Your task to perform on an android device: Clear the cart on bestbuy.com. Add logitech g903 to the cart on bestbuy.com, then select checkout. Image 0: 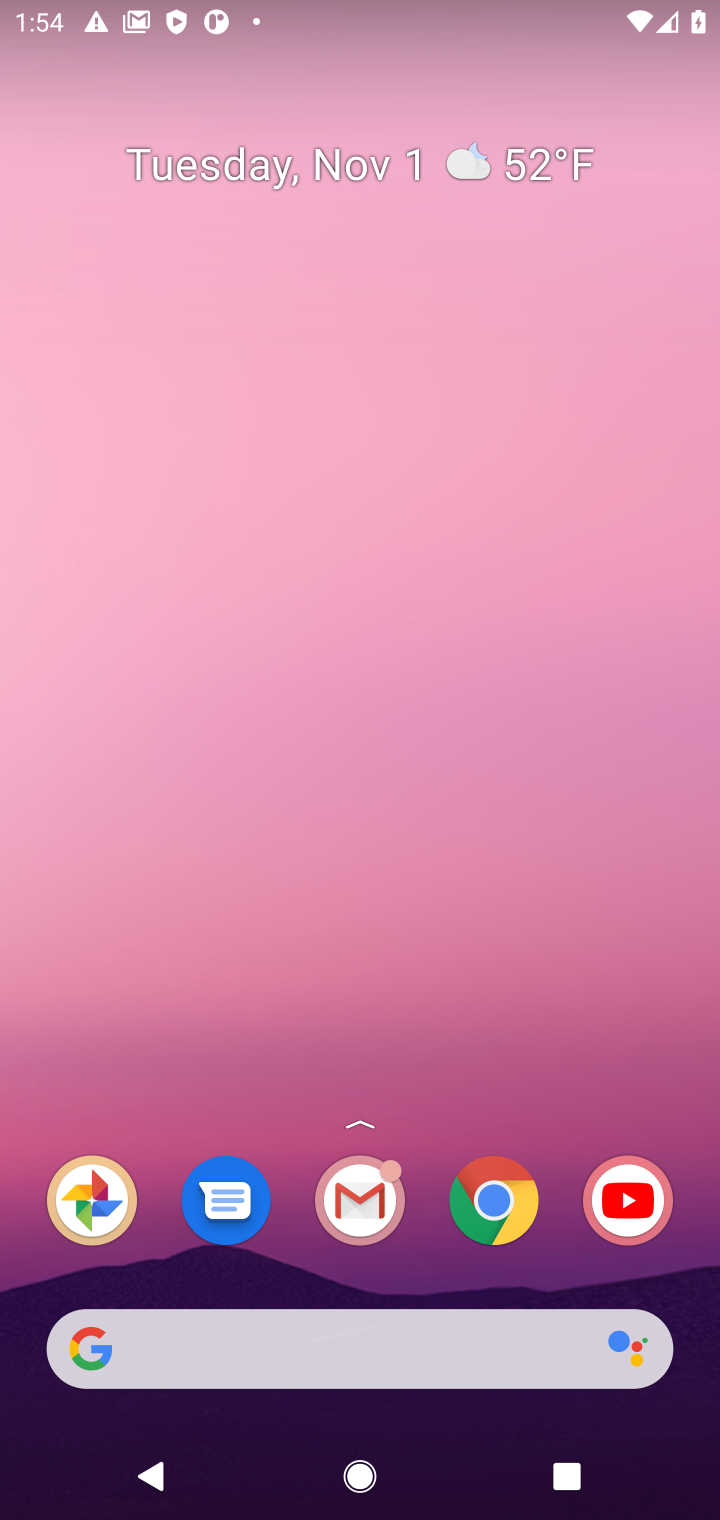
Step 0: click (88, 1356)
Your task to perform on an android device: Clear the cart on bestbuy.com. Add logitech g903 to the cart on bestbuy.com, then select checkout. Image 1: 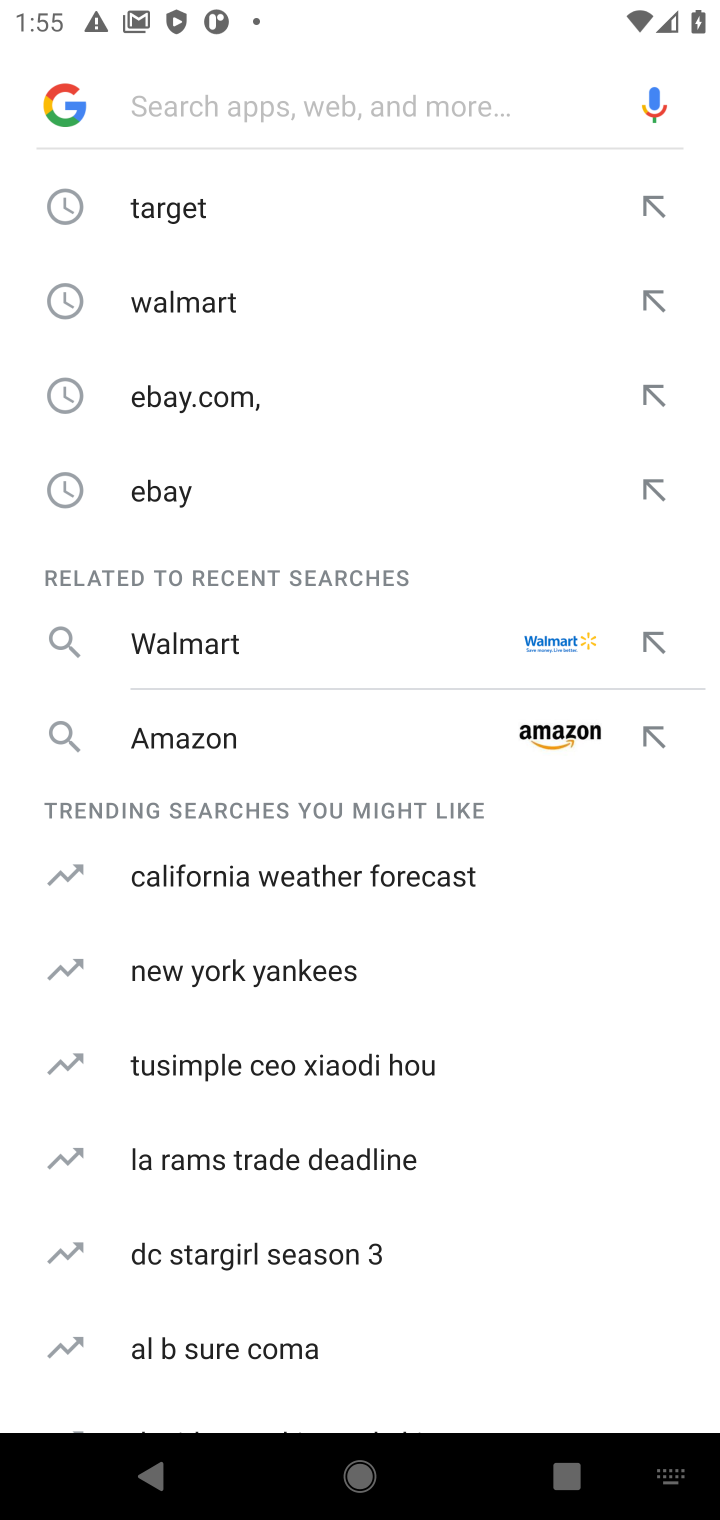
Step 1: type "bestbuy.com,"
Your task to perform on an android device: Clear the cart on bestbuy.com. Add logitech g903 to the cart on bestbuy.com, then select checkout. Image 2: 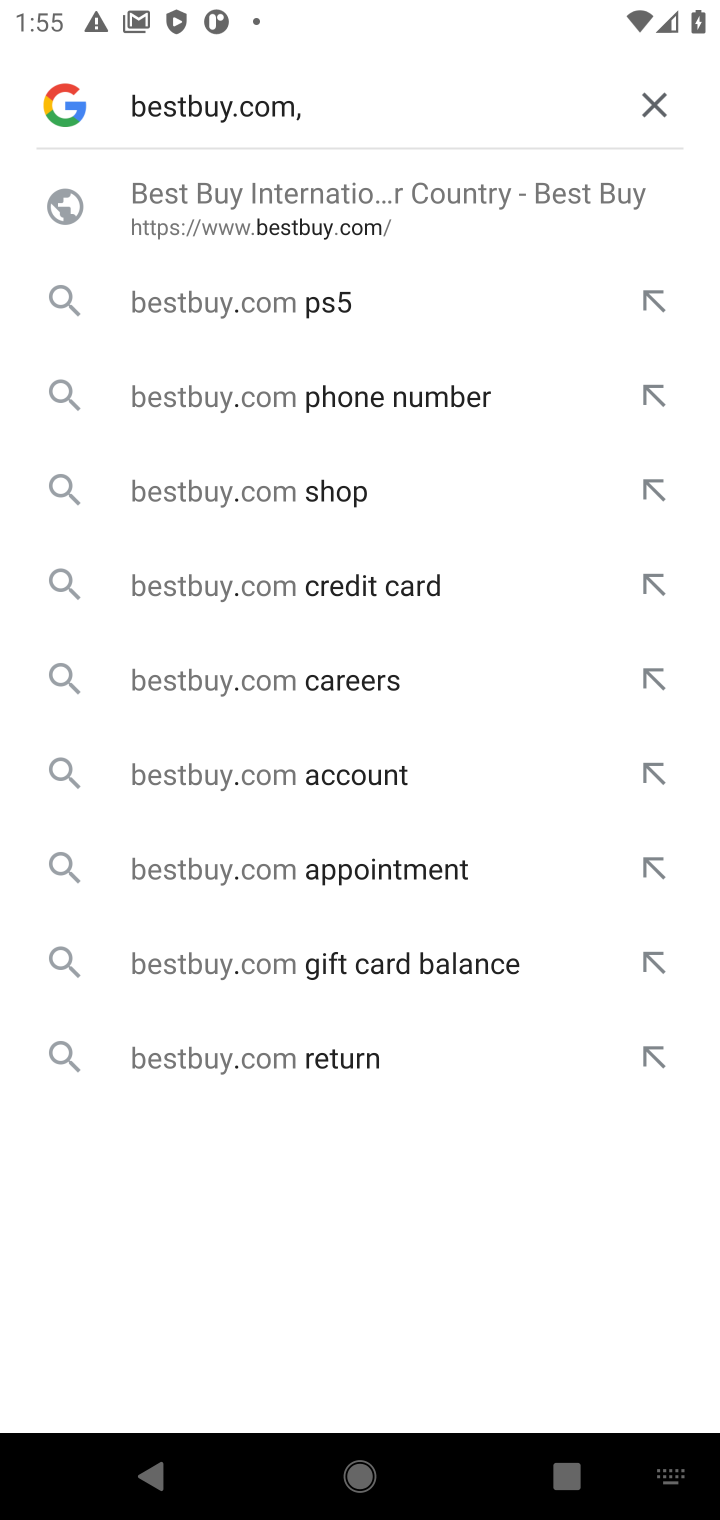
Step 2: click (383, 215)
Your task to perform on an android device: Clear the cart on bestbuy.com. Add logitech g903 to the cart on bestbuy.com, then select checkout. Image 3: 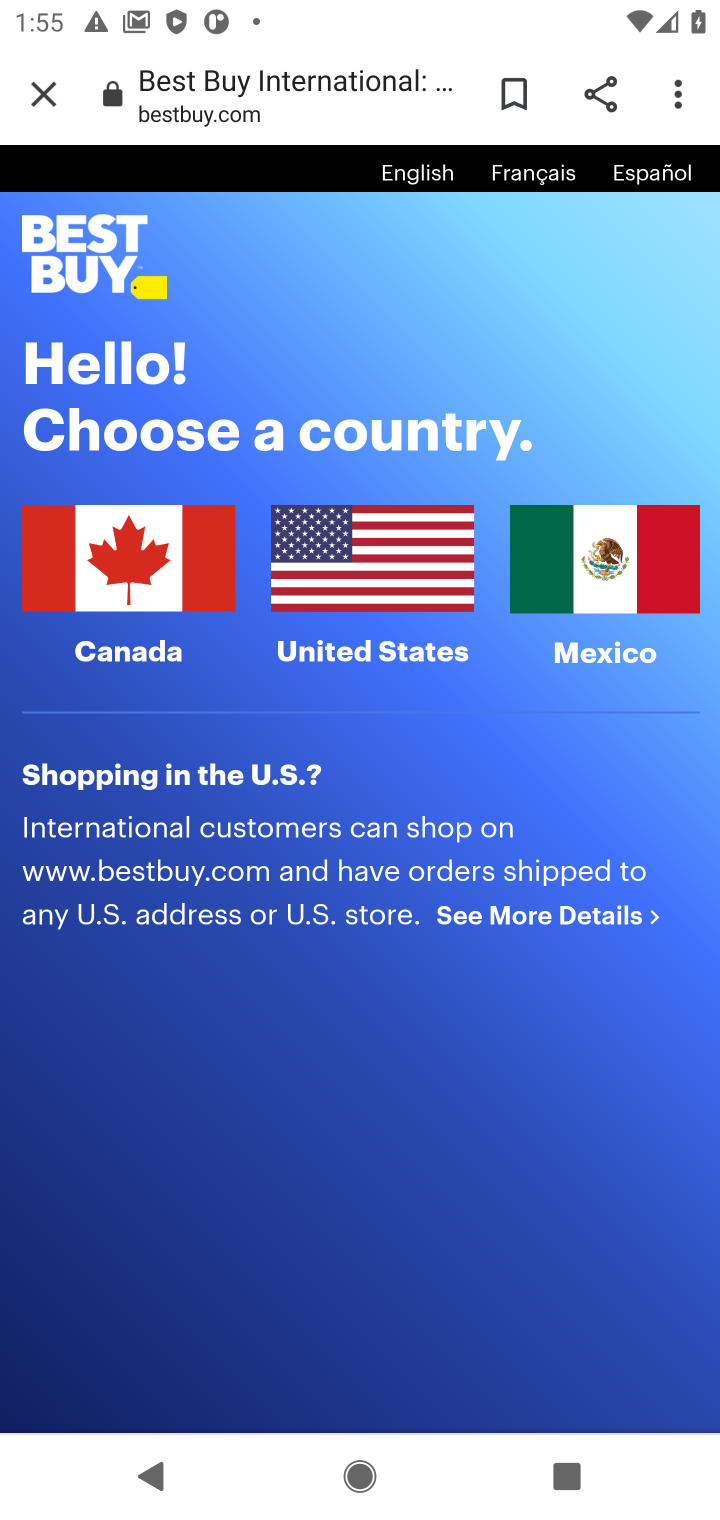
Step 3: click (342, 536)
Your task to perform on an android device: Clear the cart on bestbuy.com. Add logitech g903 to the cart on bestbuy.com, then select checkout. Image 4: 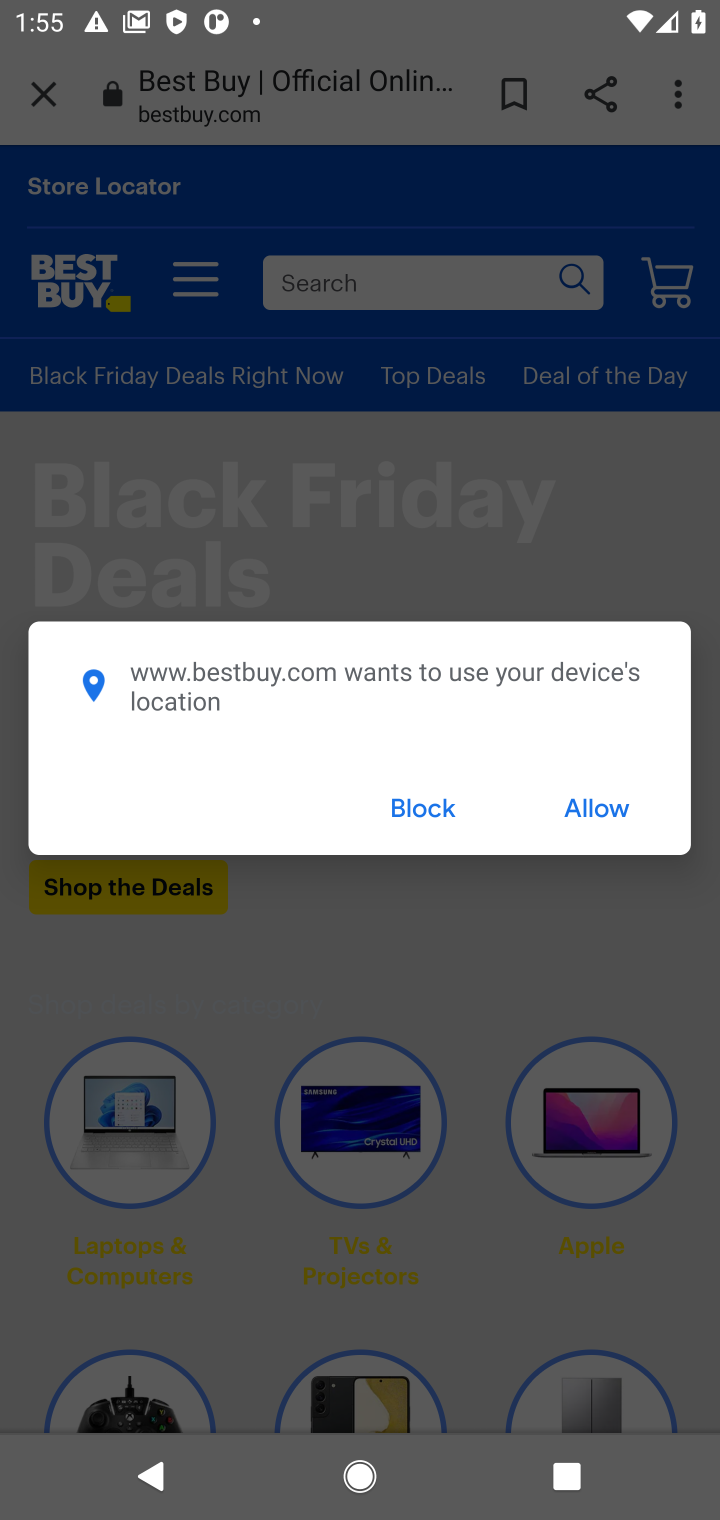
Step 4: click (626, 816)
Your task to perform on an android device: Clear the cart on bestbuy.com. Add logitech g903 to the cart on bestbuy.com, then select checkout. Image 5: 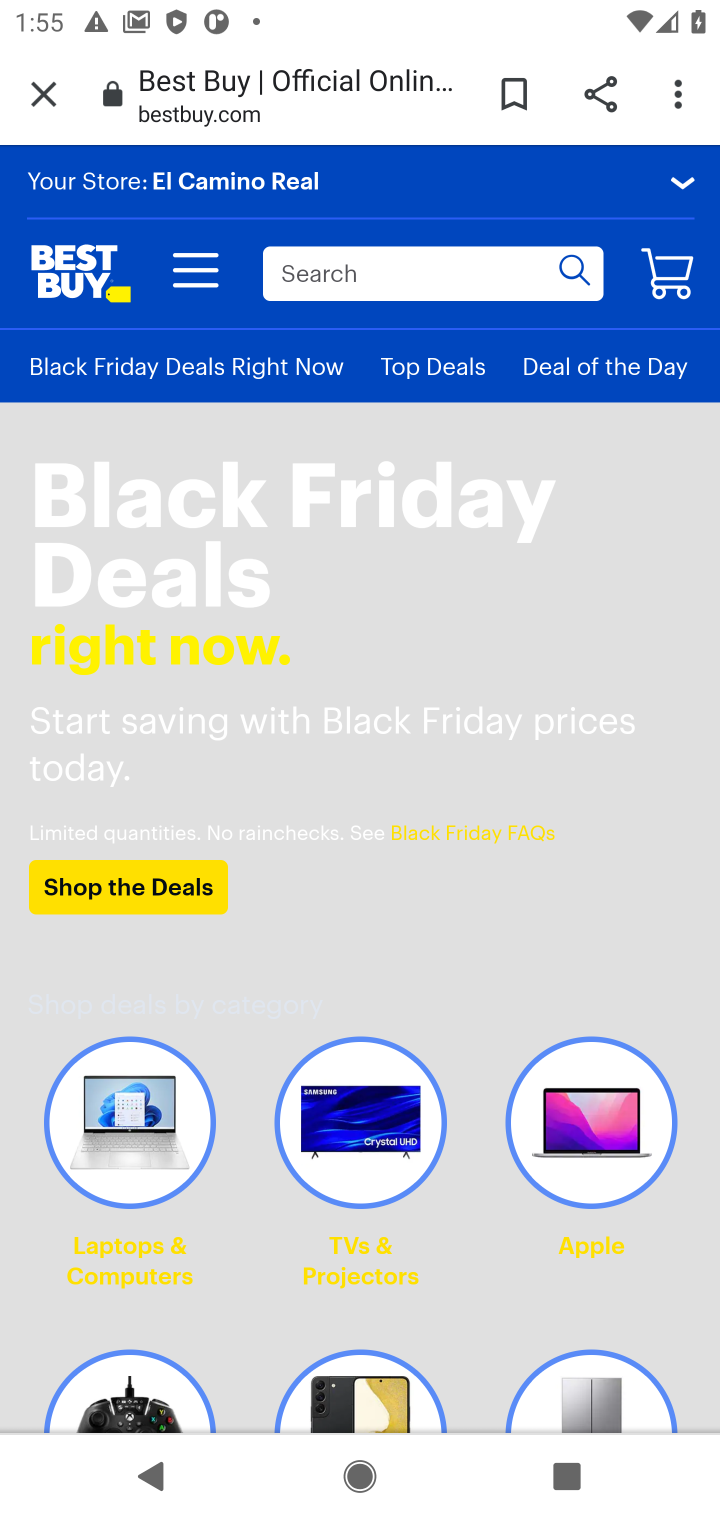
Step 5: click (360, 266)
Your task to perform on an android device: Clear the cart on bestbuy.com. Add logitech g903 to the cart on bestbuy.com, then select checkout. Image 6: 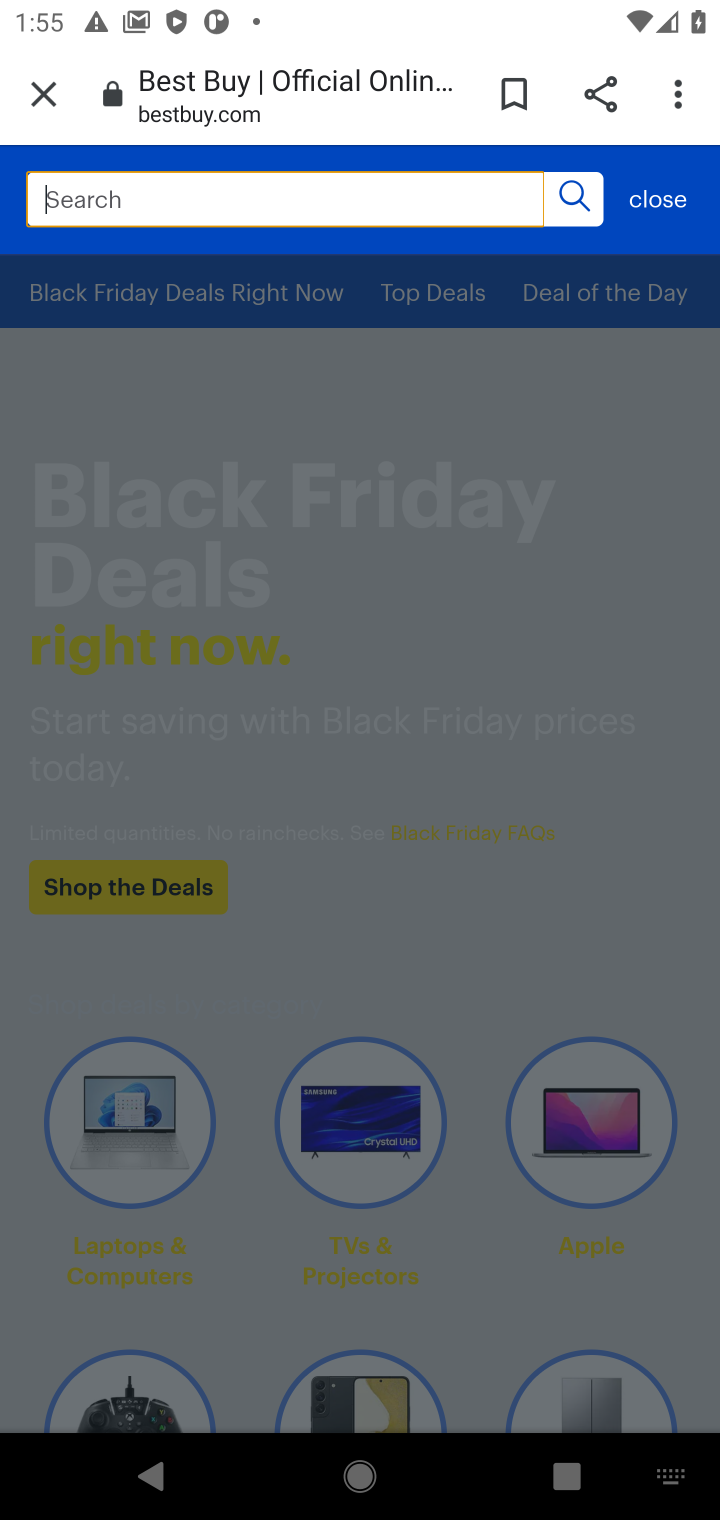
Step 6: click (487, 593)
Your task to perform on an android device: Clear the cart on bestbuy.com. Add logitech g903 to the cart on bestbuy.com, then select checkout. Image 7: 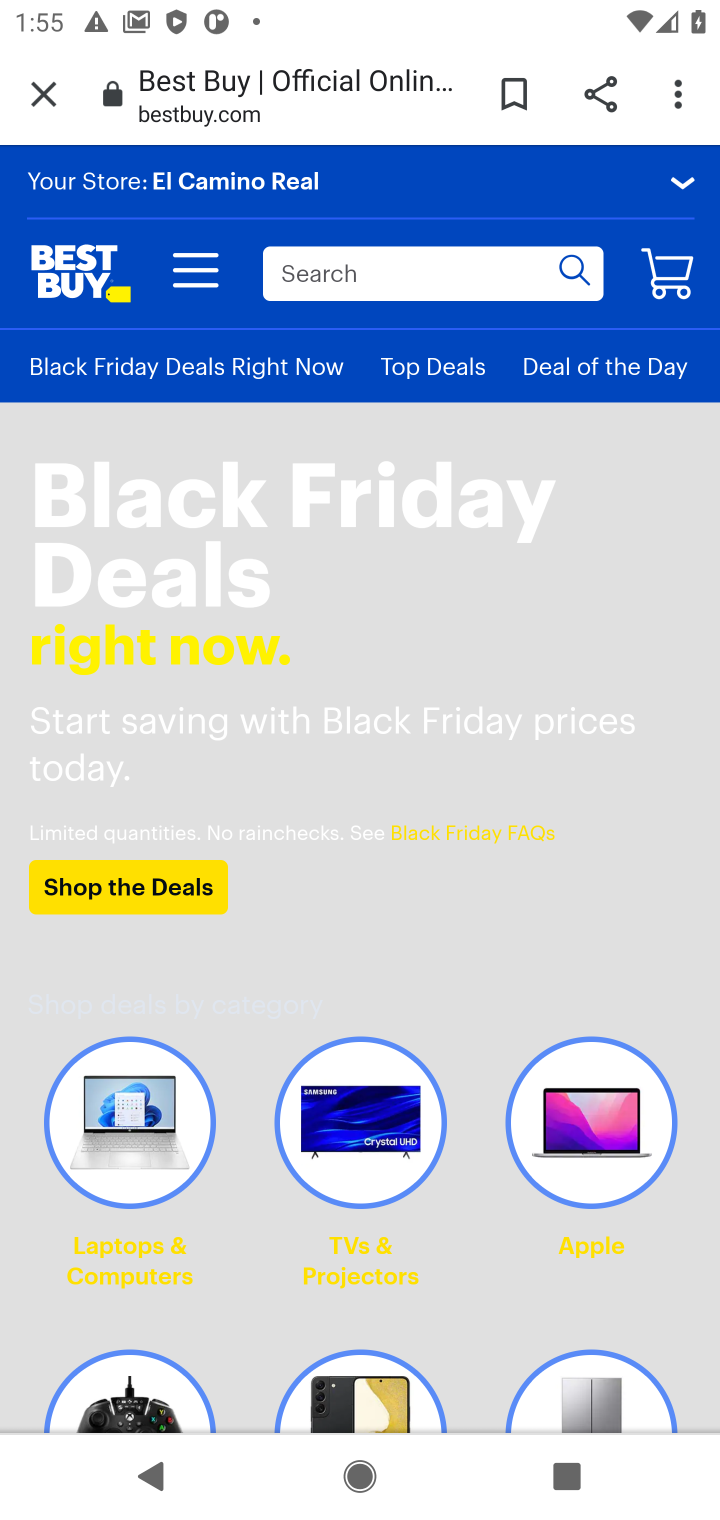
Step 7: click (668, 274)
Your task to perform on an android device: Clear the cart on bestbuy.com. Add logitech g903 to the cart on bestbuy.com, then select checkout. Image 8: 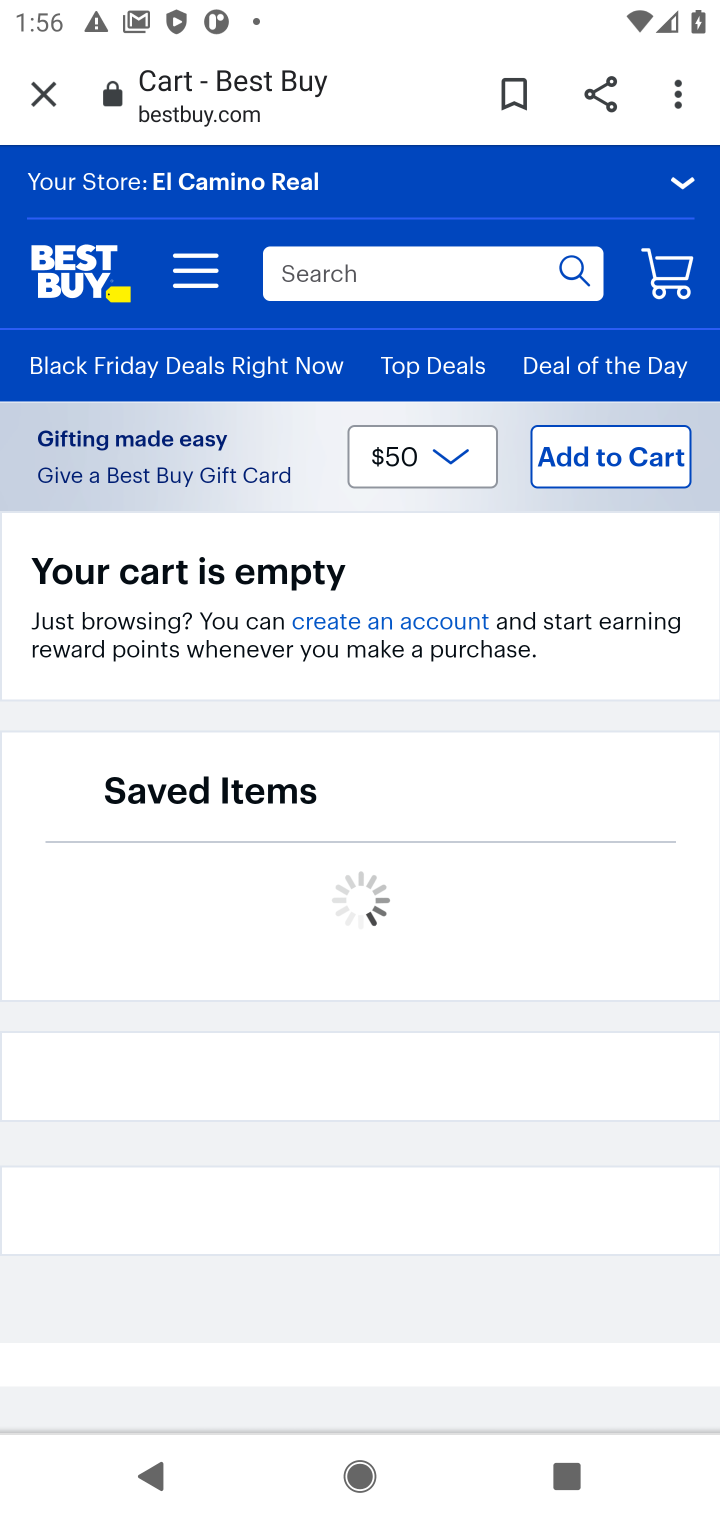
Step 8: click (329, 265)
Your task to perform on an android device: Clear the cart on bestbuy.com. Add logitech g903 to the cart on bestbuy.com, then select checkout. Image 9: 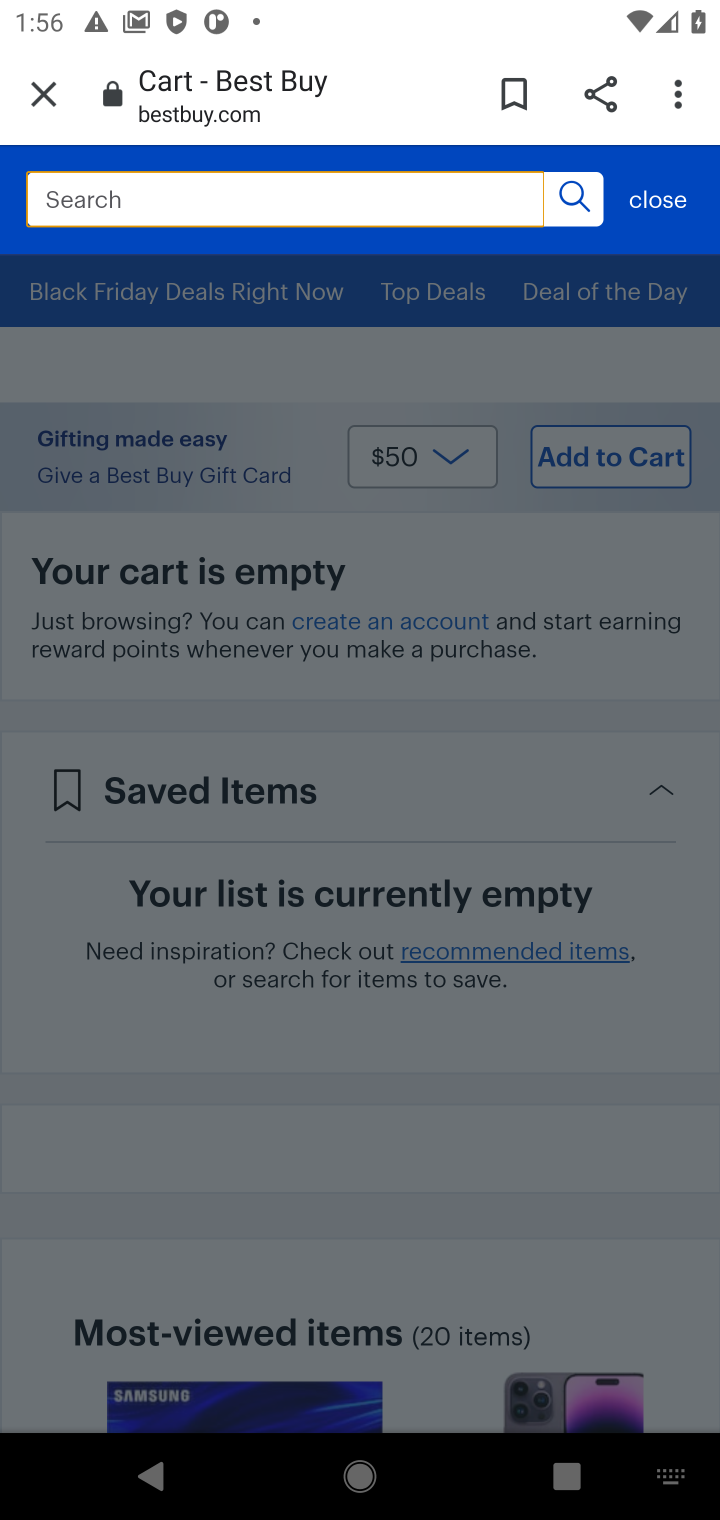
Step 9: type "logitech g903"
Your task to perform on an android device: Clear the cart on bestbuy.com. Add logitech g903 to the cart on bestbuy.com, then select checkout. Image 10: 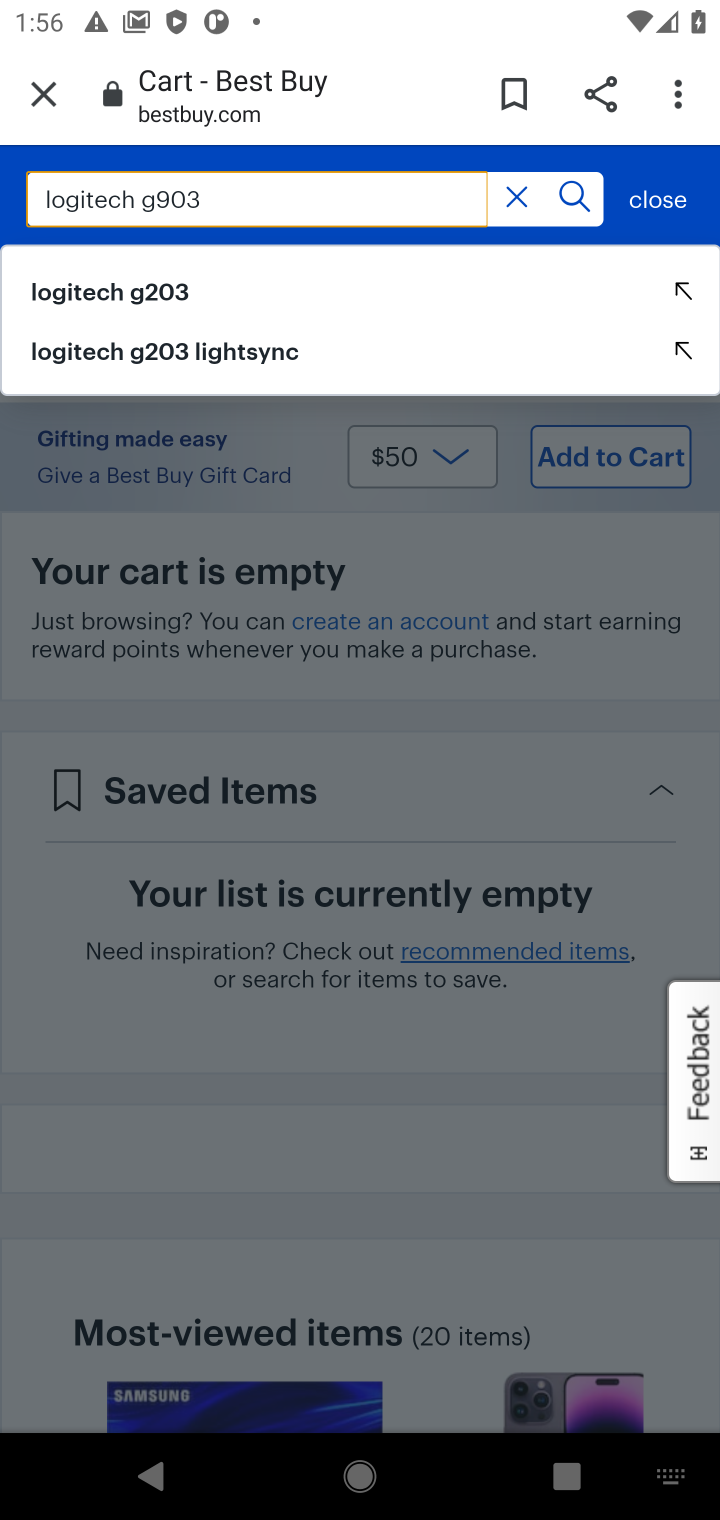
Step 10: click (142, 289)
Your task to perform on an android device: Clear the cart on bestbuy.com. Add logitech g903 to the cart on bestbuy.com, then select checkout. Image 11: 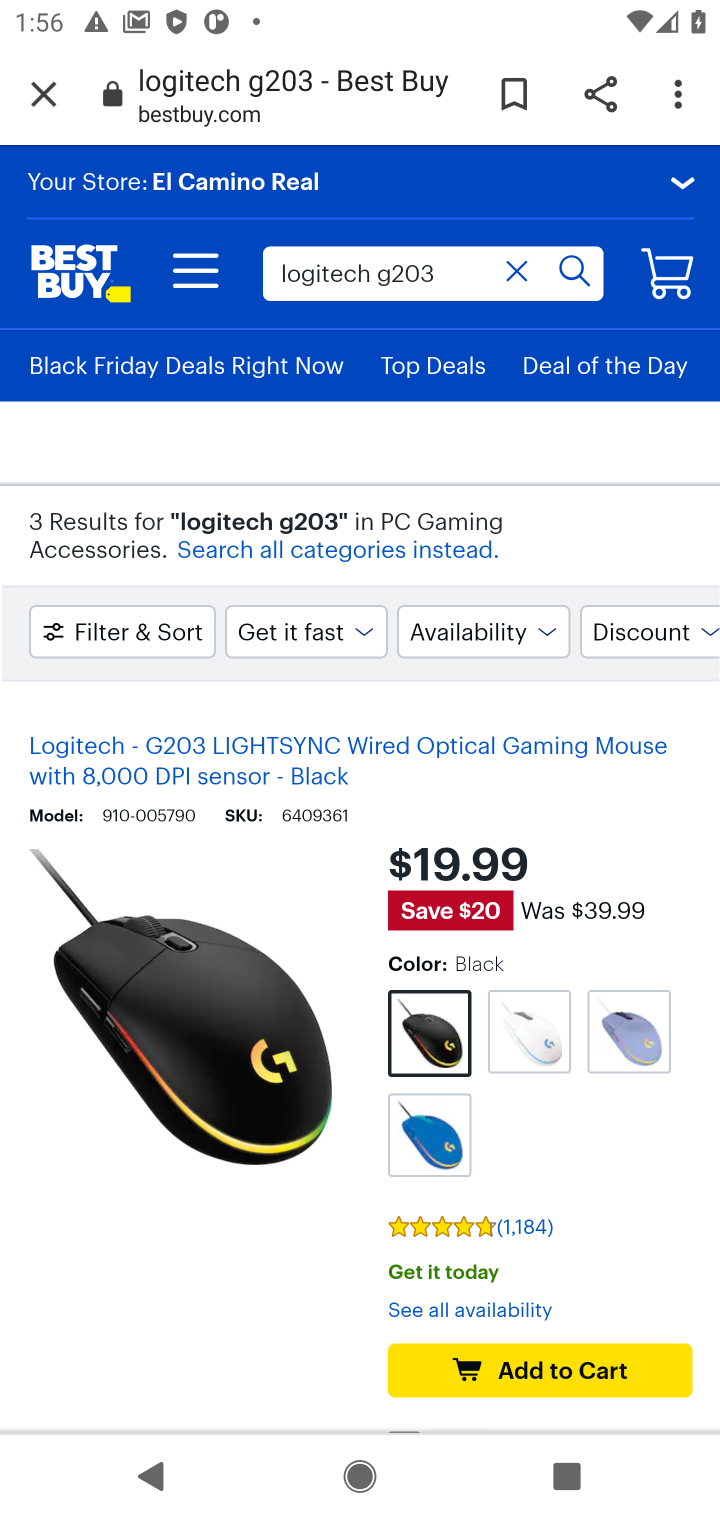
Step 11: click (518, 1367)
Your task to perform on an android device: Clear the cart on bestbuy.com. Add logitech g903 to the cart on bestbuy.com, then select checkout. Image 12: 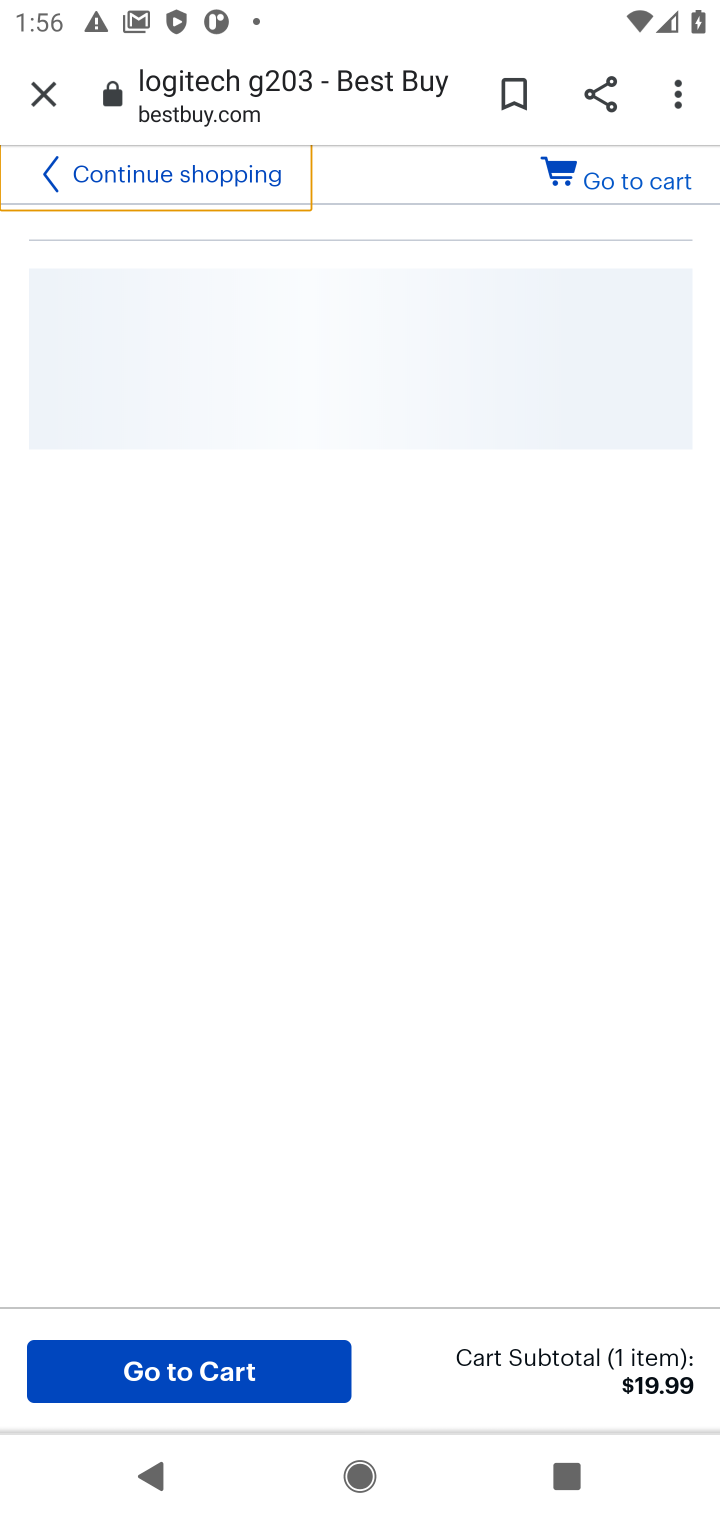
Step 12: click (160, 1361)
Your task to perform on an android device: Clear the cart on bestbuy.com. Add logitech g903 to the cart on bestbuy.com, then select checkout. Image 13: 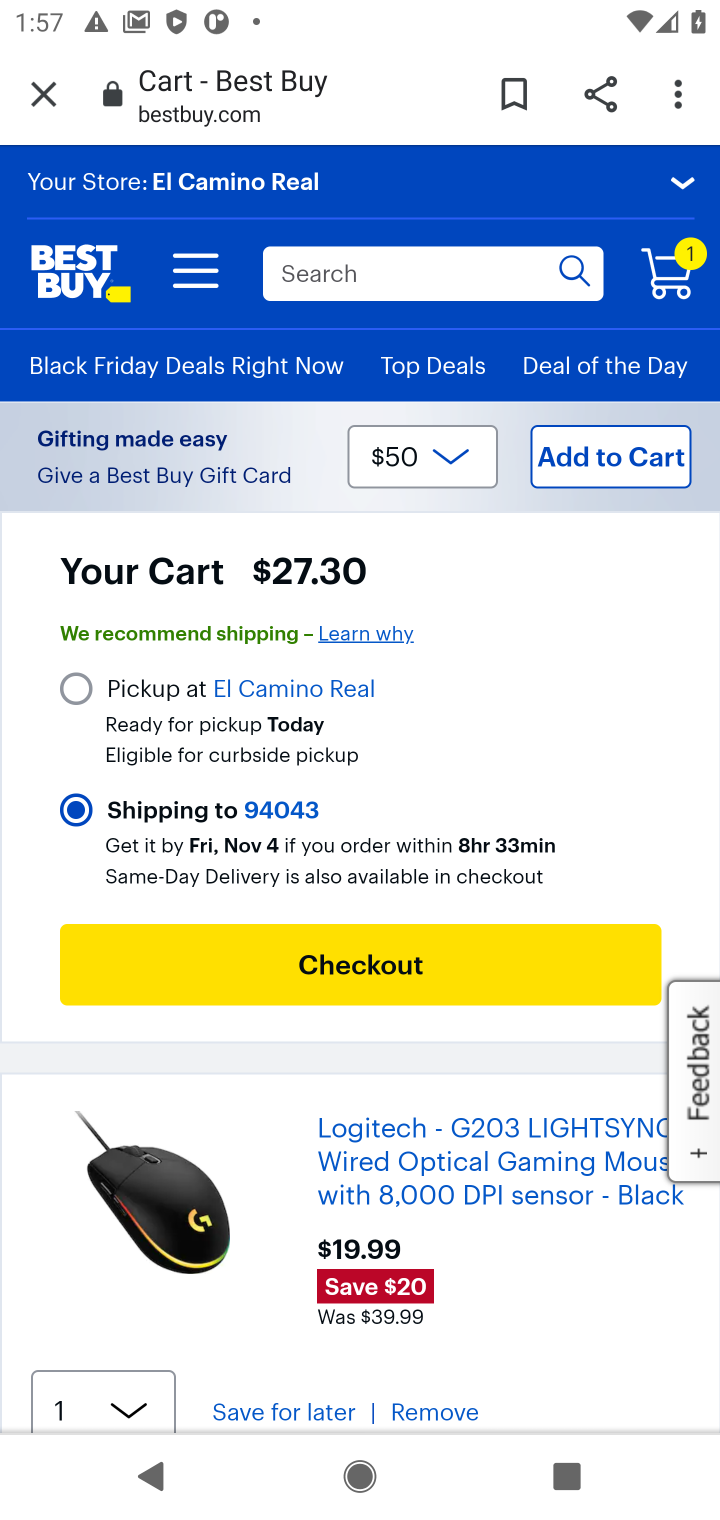
Step 13: click (435, 961)
Your task to perform on an android device: Clear the cart on bestbuy.com. Add logitech g903 to the cart on bestbuy.com, then select checkout. Image 14: 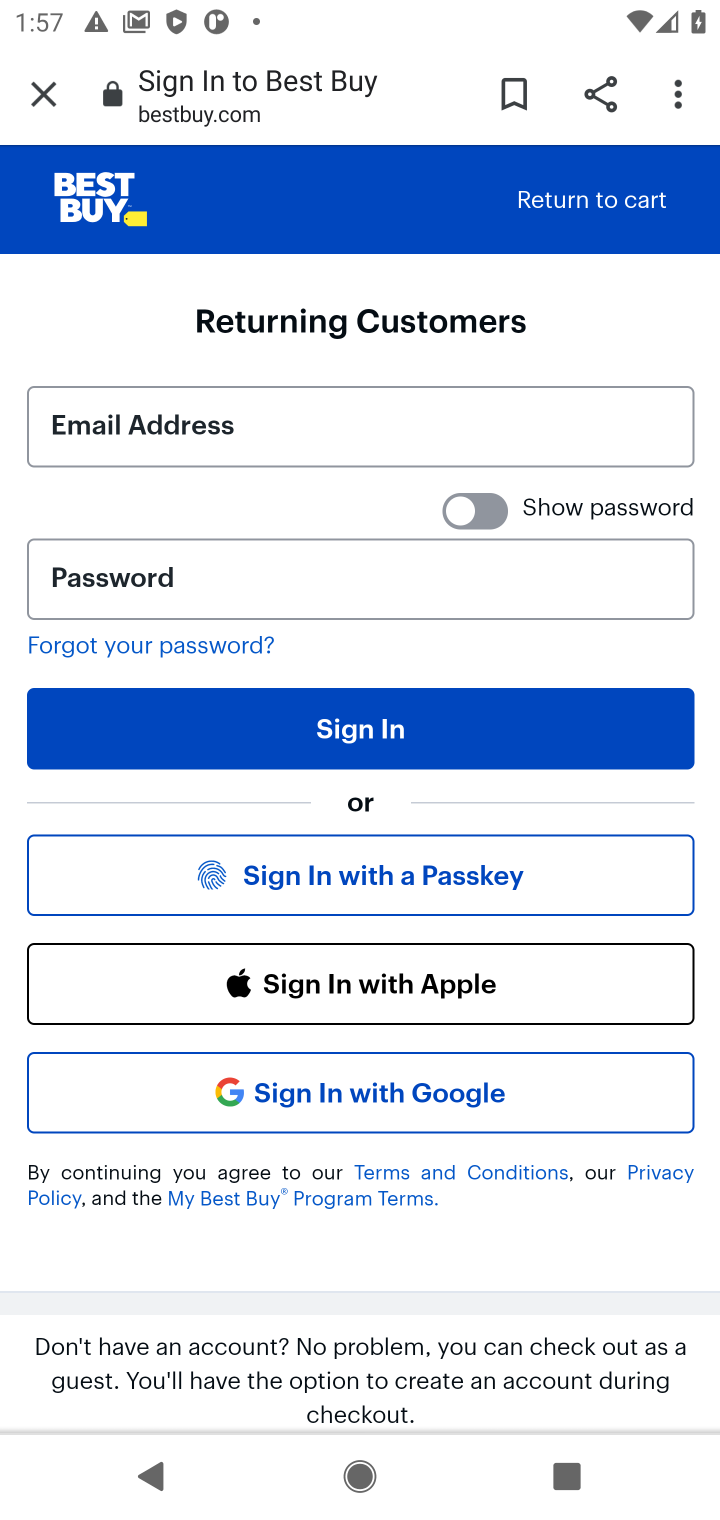
Step 14: task complete